Your task to perform on an android device: Open Google Chrome and open the bookmarks view Image 0: 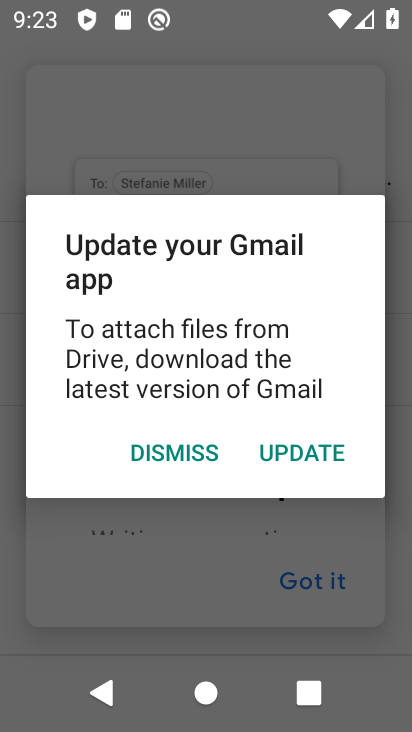
Step 0: press home button
Your task to perform on an android device: Open Google Chrome and open the bookmarks view Image 1: 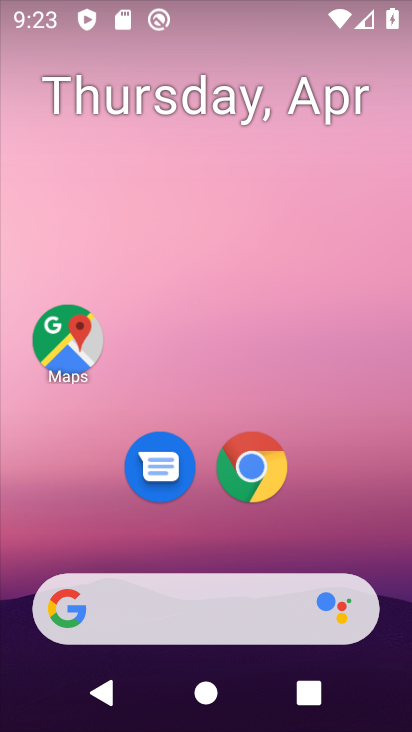
Step 1: drag from (342, 468) to (249, 130)
Your task to perform on an android device: Open Google Chrome and open the bookmarks view Image 2: 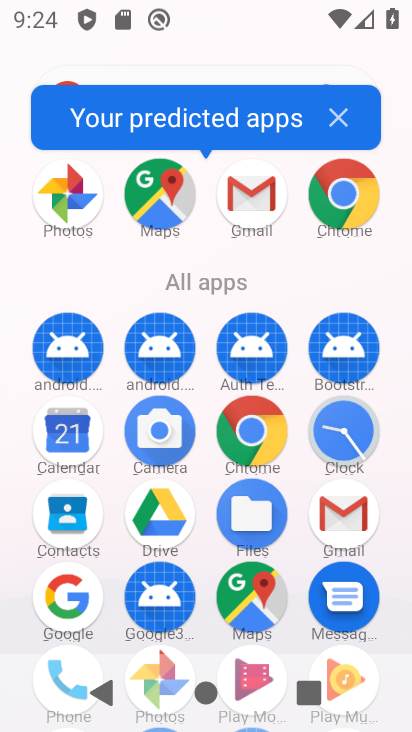
Step 2: click (358, 207)
Your task to perform on an android device: Open Google Chrome and open the bookmarks view Image 3: 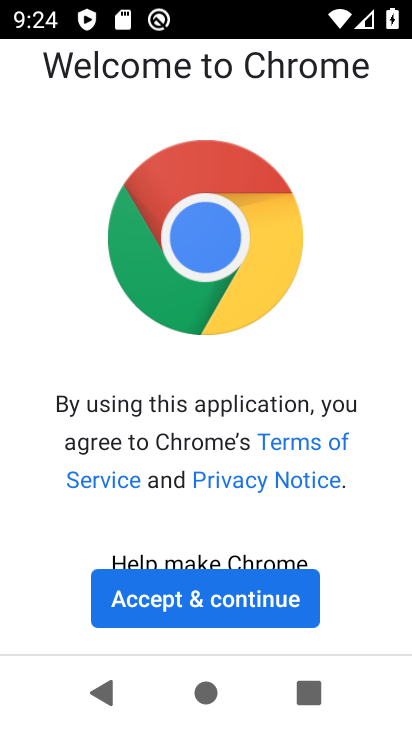
Step 3: click (205, 592)
Your task to perform on an android device: Open Google Chrome and open the bookmarks view Image 4: 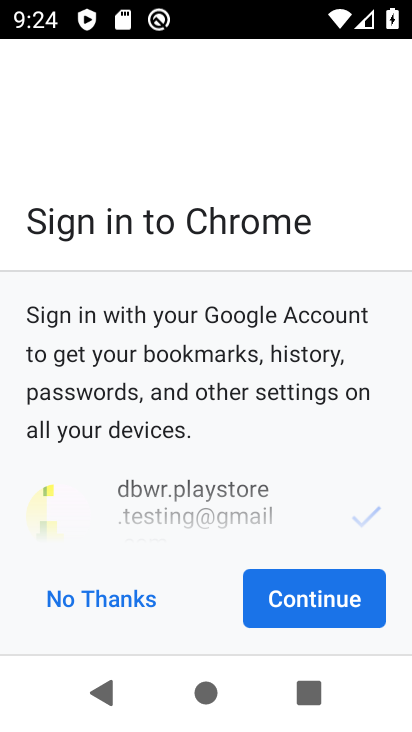
Step 4: click (283, 602)
Your task to perform on an android device: Open Google Chrome and open the bookmarks view Image 5: 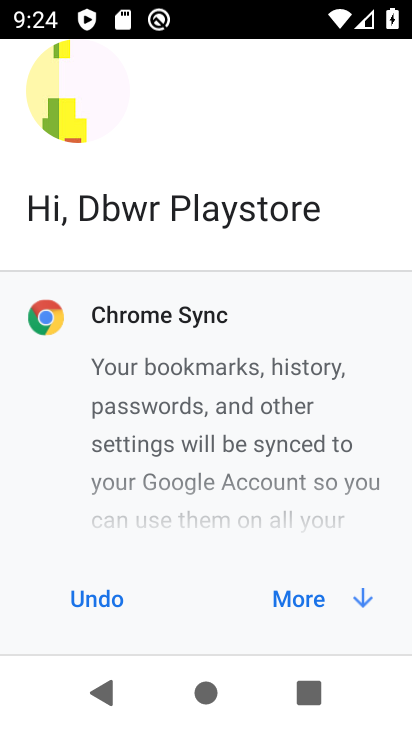
Step 5: click (283, 602)
Your task to perform on an android device: Open Google Chrome and open the bookmarks view Image 6: 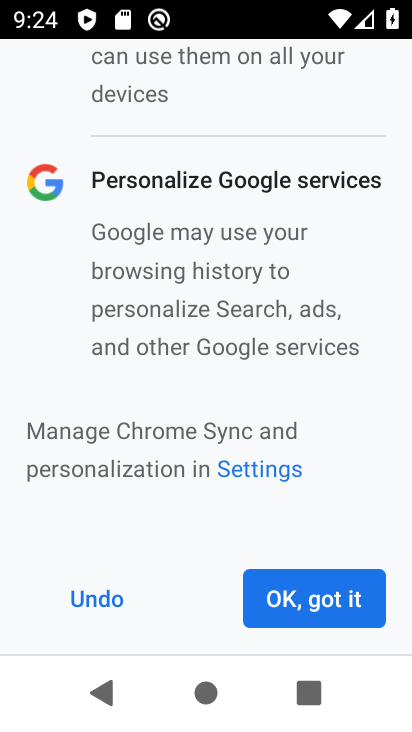
Step 6: click (283, 602)
Your task to perform on an android device: Open Google Chrome and open the bookmarks view Image 7: 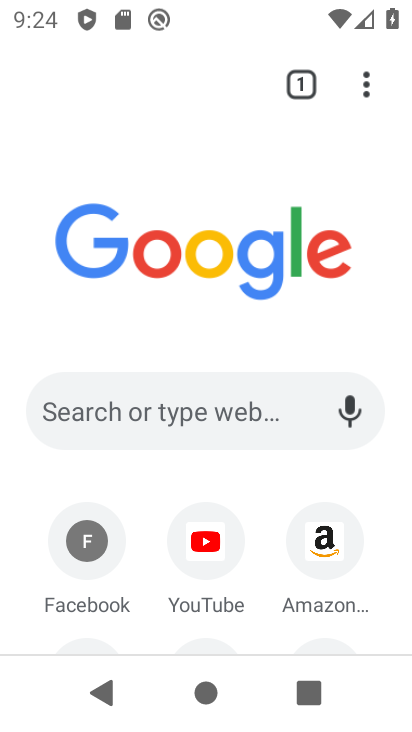
Step 7: click (364, 99)
Your task to perform on an android device: Open Google Chrome and open the bookmarks view Image 8: 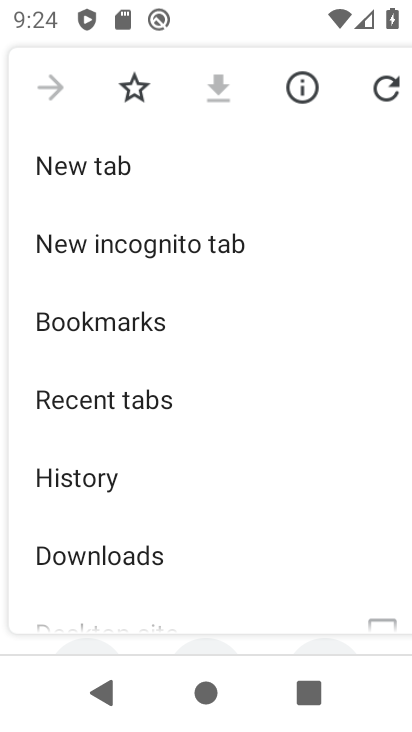
Step 8: click (233, 332)
Your task to perform on an android device: Open Google Chrome and open the bookmarks view Image 9: 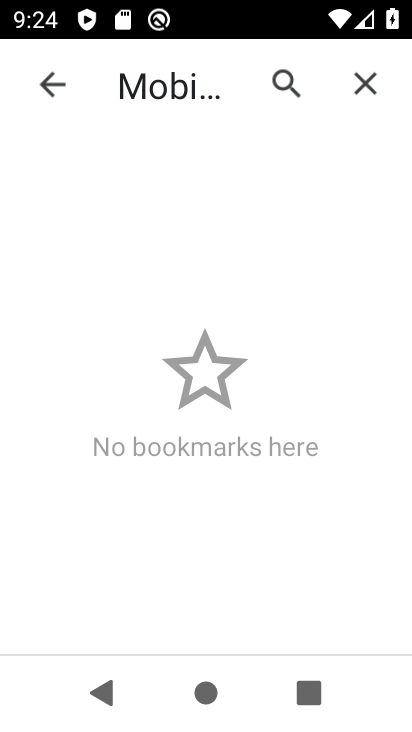
Step 9: task complete